Your task to perform on an android device: turn off airplane mode Image 0: 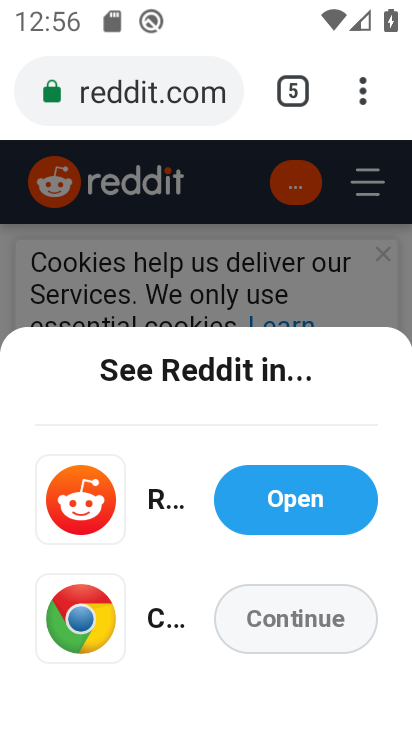
Step 0: press home button
Your task to perform on an android device: turn off airplane mode Image 1: 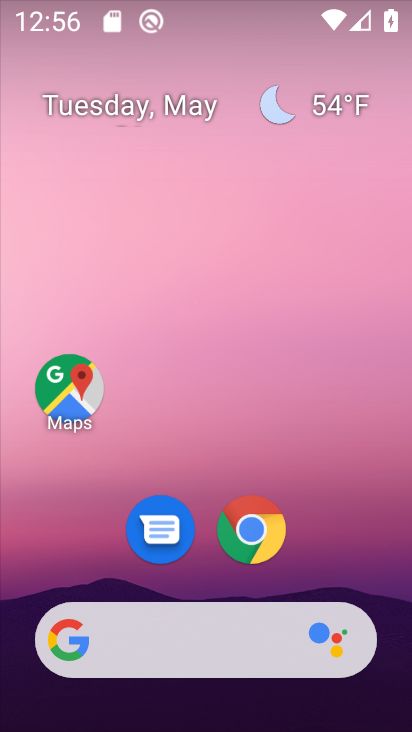
Step 1: drag from (239, 577) to (229, 233)
Your task to perform on an android device: turn off airplane mode Image 2: 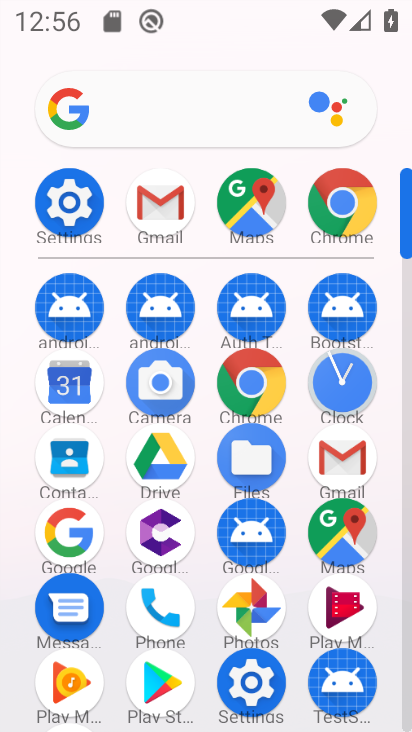
Step 2: click (73, 199)
Your task to perform on an android device: turn off airplane mode Image 3: 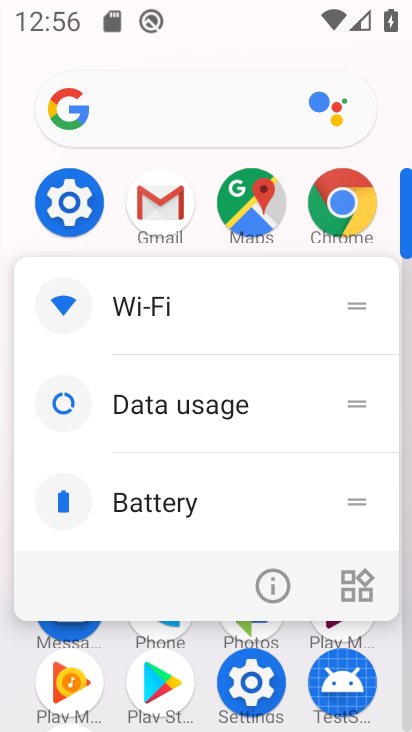
Step 3: click (73, 199)
Your task to perform on an android device: turn off airplane mode Image 4: 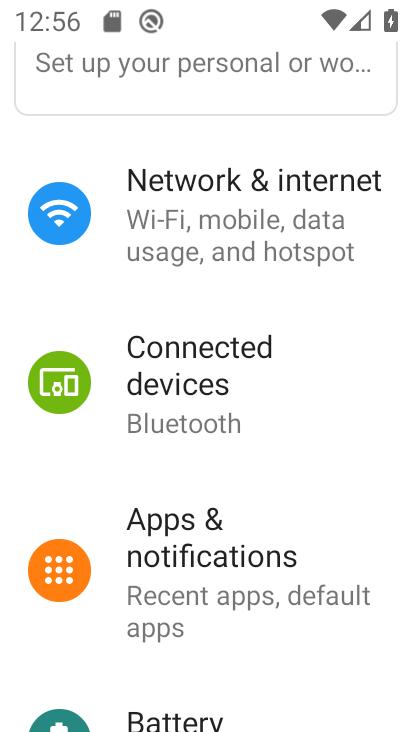
Step 4: drag from (254, 192) to (219, 458)
Your task to perform on an android device: turn off airplane mode Image 5: 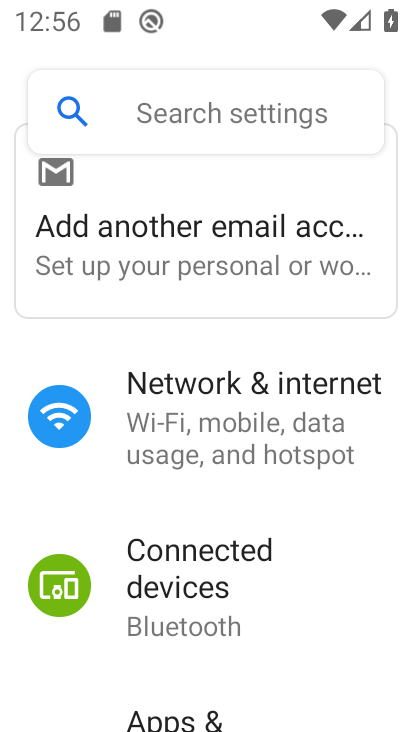
Step 5: click (220, 400)
Your task to perform on an android device: turn off airplane mode Image 6: 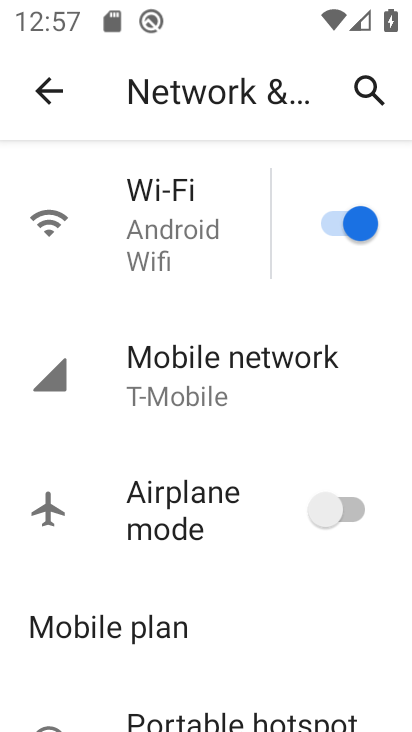
Step 6: task complete